Your task to perform on an android device: change your default location settings in chrome Image 0: 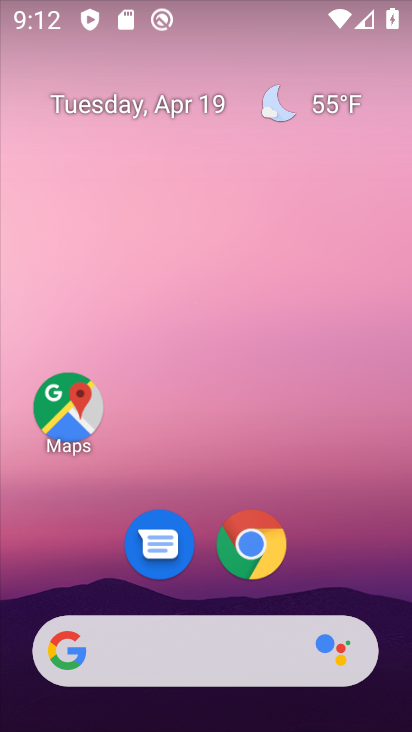
Step 0: click (366, 73)
Your task to perform on an android device: change your default location settings in chrome Image 1: 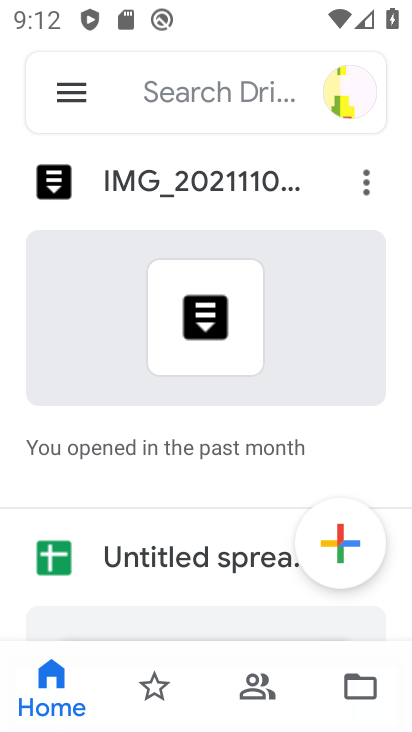
Step 1: press home button
Your task to perform on an android device: change your default location settings in chrome Image 2: 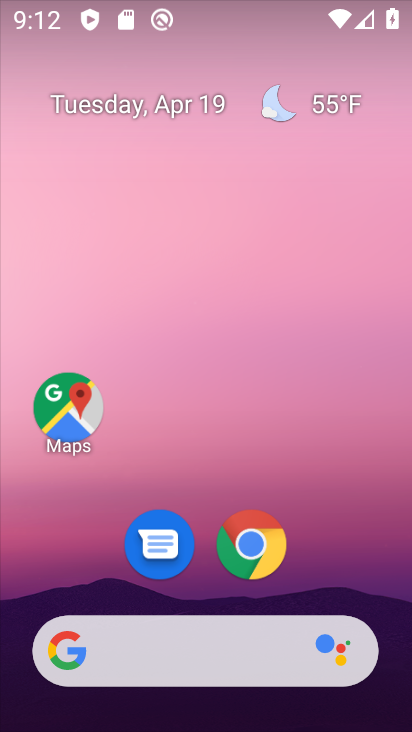
Step 2: drag from (354, 571) to (367, 73)
Your task to perform on an android device: change your default location settings in chrome Image 3: 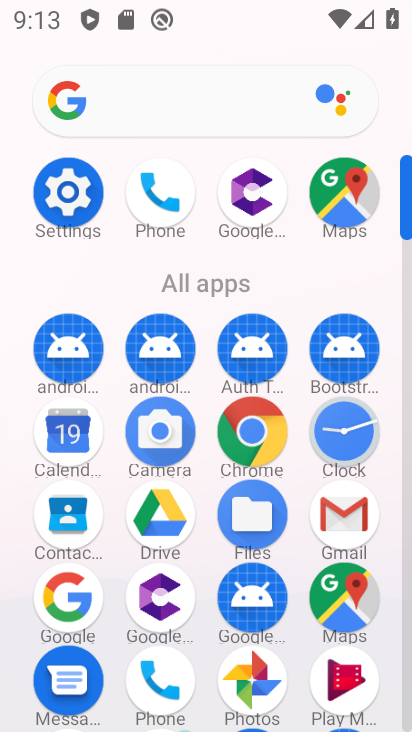
Step 3: click (273, 445)
Your task to perform on an android device: change your default location settings in chrome Image 4: 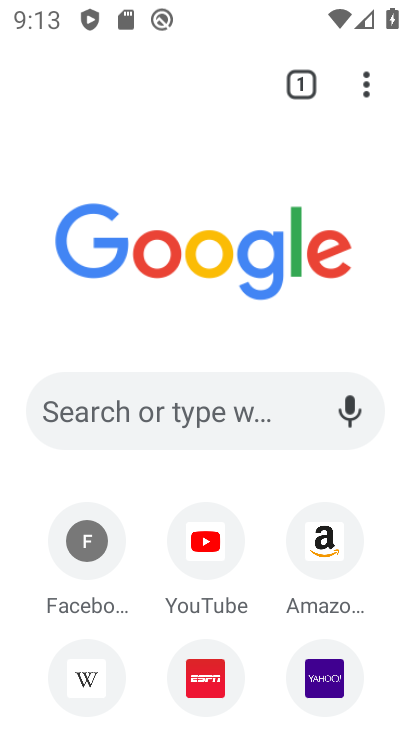
Step 4: click (366, 91)
Your task to perform on an android device: change your default location settings in chrome Image 5: 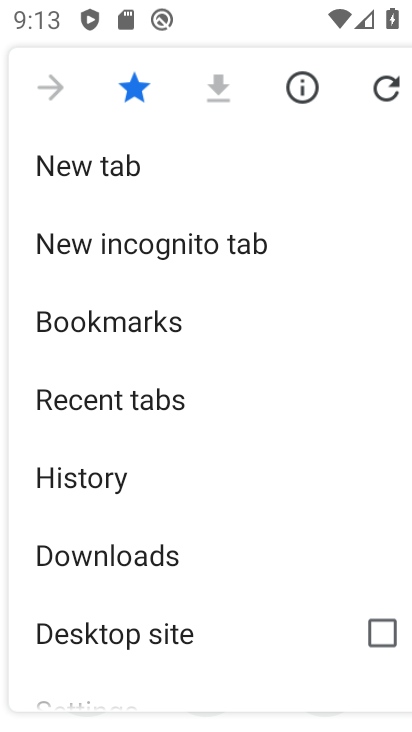
Step 5: drag from (292, 545) to (316, 292)
Your task to perform on an android device: change your default location settings in chrome Image 6: 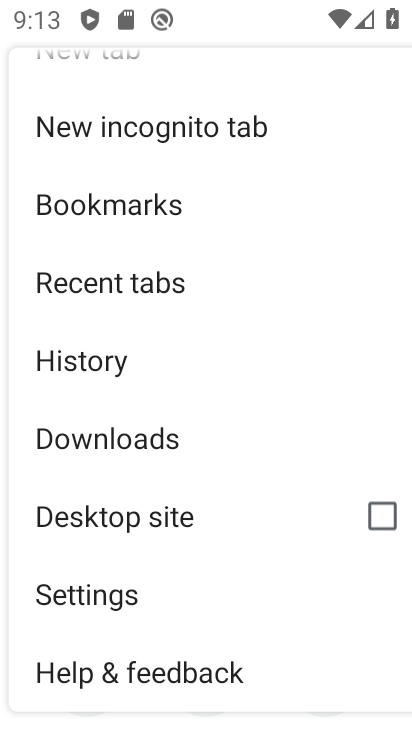
Step 6: click (99, 598)
Your task to perform on an android device: change your default location settings in chrome Image 7: 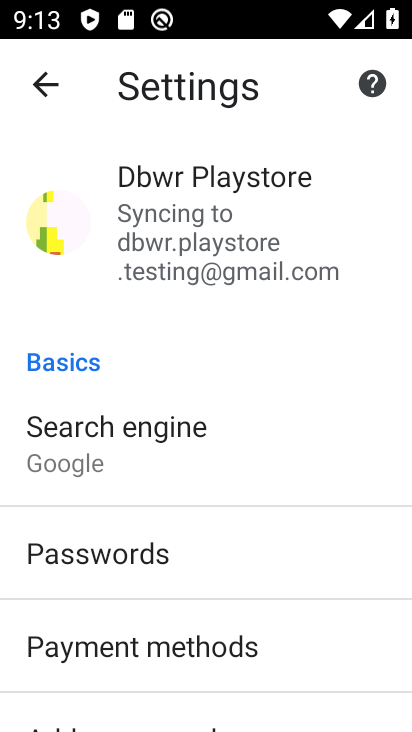
Step 7: drag from (311, 562) to (342, 394)
Your task to perform on an android device: change your default location settings in chrome Image 8: 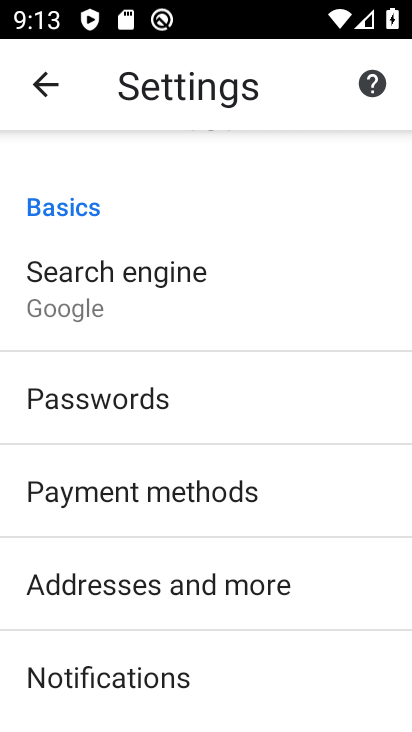
Step 8: drag from (339, 589) to (362, 415)
Your task to perform on an android device: change your default location settings in chrome Image 9: 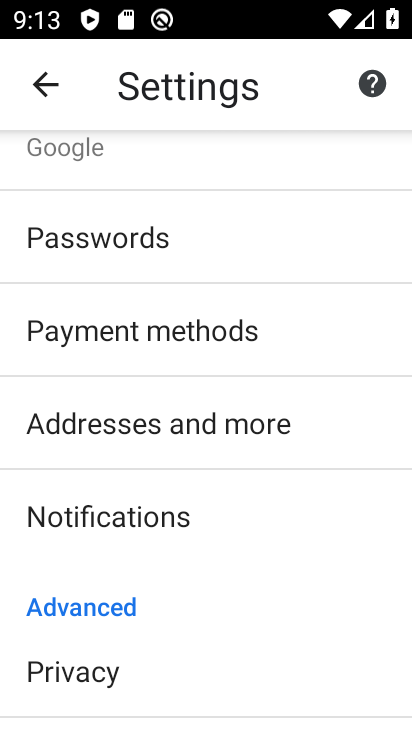
Step 9: drag from (301, 602) to (319, 339)
Your task to perform on an android device: change your default location settings in chrome Image 10: 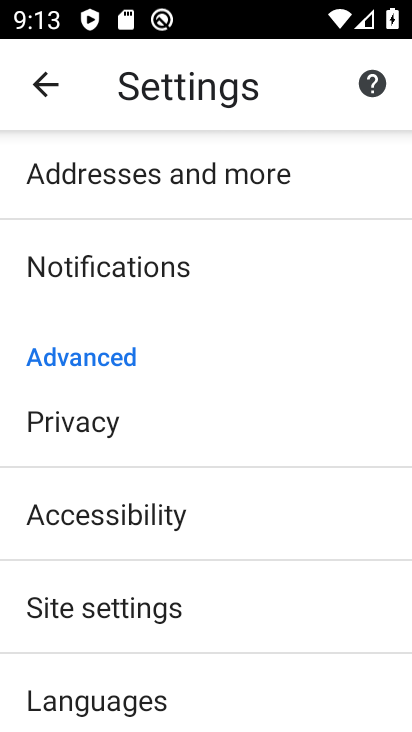
Step 10: click (225, 605)
Your task to perform on an android device: change your default location settings in chrome Image 11: 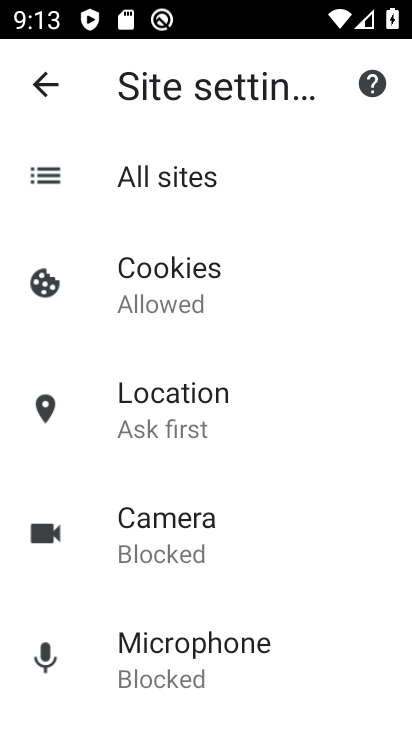
Step 11: drag from (312, 600) to (334, 372)
Your task to perform on an android device: change your default location settings in chrome Image 12: 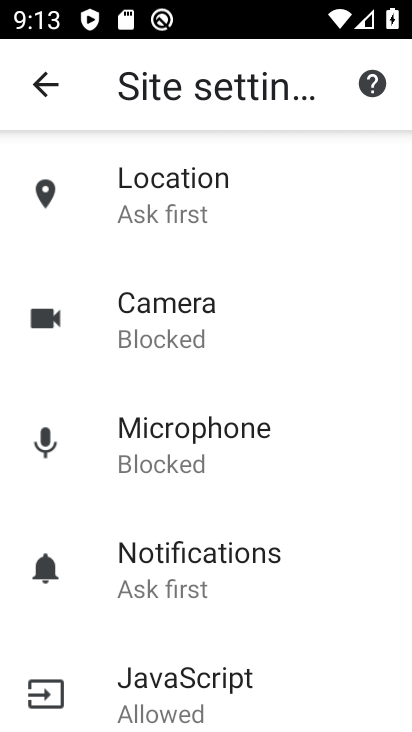
Step 12: drag from (312, 623) to (328, 390)
Your task to perform on an android device: change your default location settings in chrome Image 13: 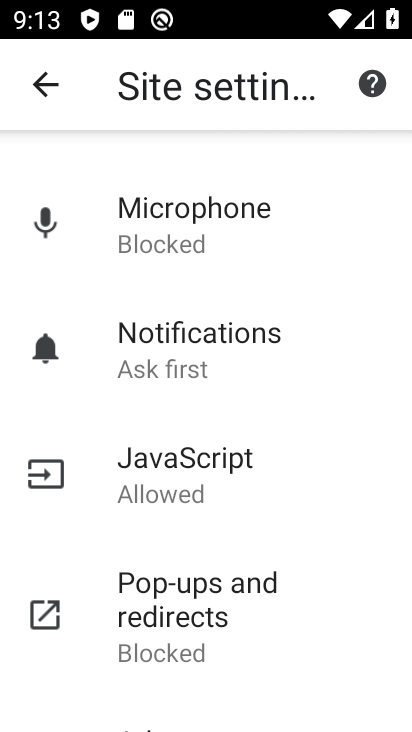
Step 13: drag from (339, 603) to (342, 367)
Your task to perform on an android device: change your default location settings in chrome Image 14: 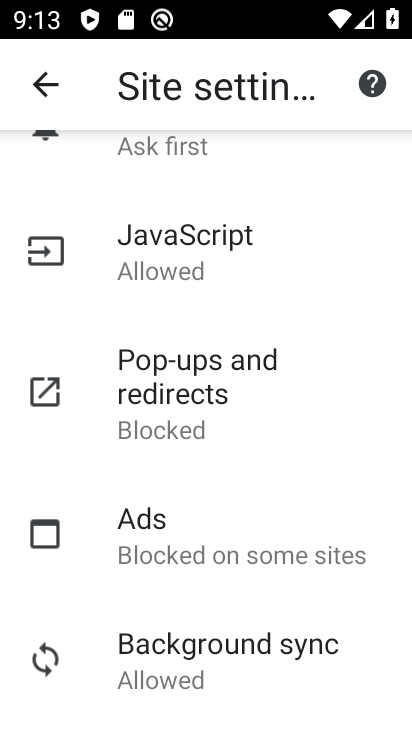
Step 14: drag from (361, 625) to (366, 371)
Your task to perform on an android device: change your default location settings in chrome Image 15: 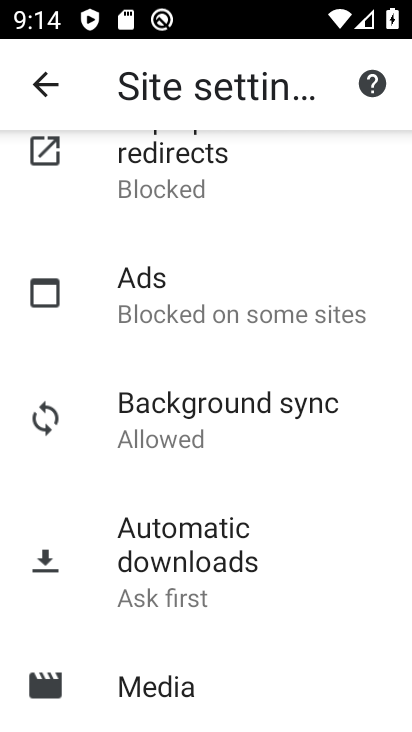
Step 15: drag from (352, 602) to (364, 322)
Your task to perform on an android device: change your default location settings in chrome Image 16: 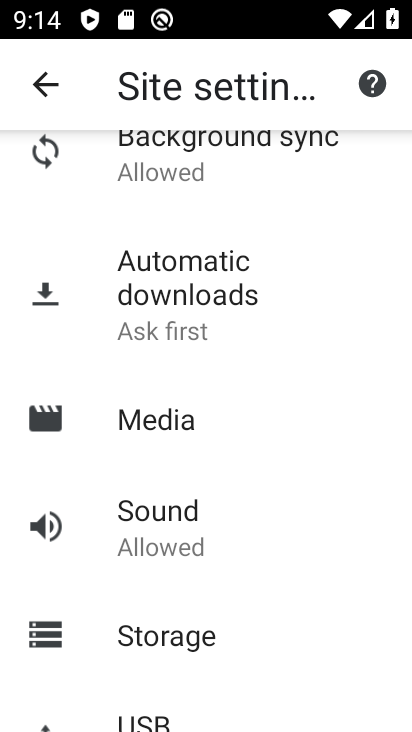
Step 16: drag from (369, 266) to (336, 503)
Your task to perform on an android device: change your default location settings in chrome Image 17: 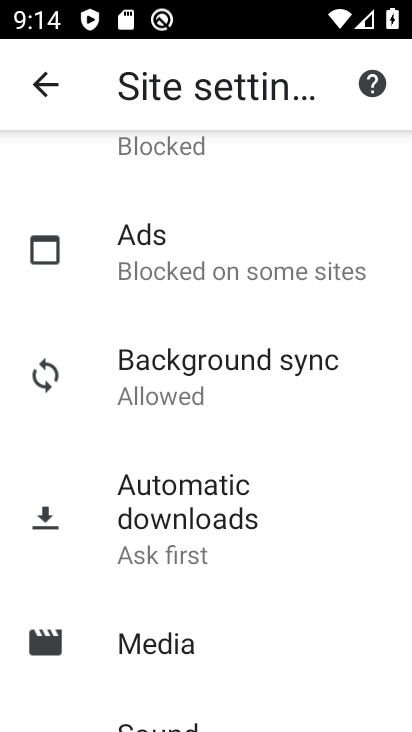
Step 17: drag from (377, 230) to (369, 495)
Your task to perform on an android device: change your default location settings in chrome Image 18: 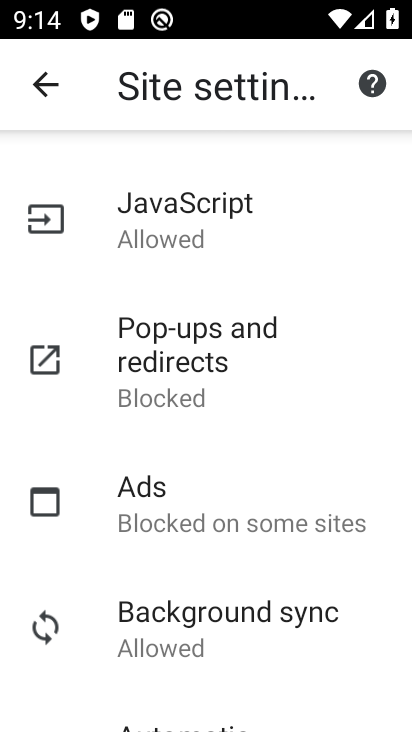
Step 18: drag from (361, 250) to (344, 478)
Your task to perform on an android device: change your default location settings in chrome Image 19: 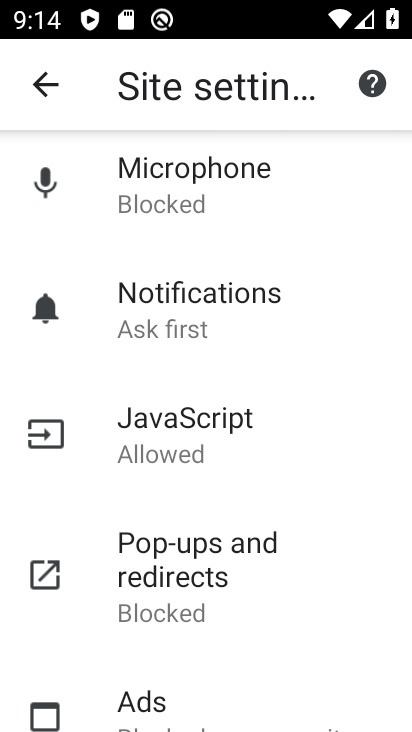
Step 19: drag from (335, 225) to (334, 518)
Your task to perform on an android device: change your default location settings in chrome Image 20: 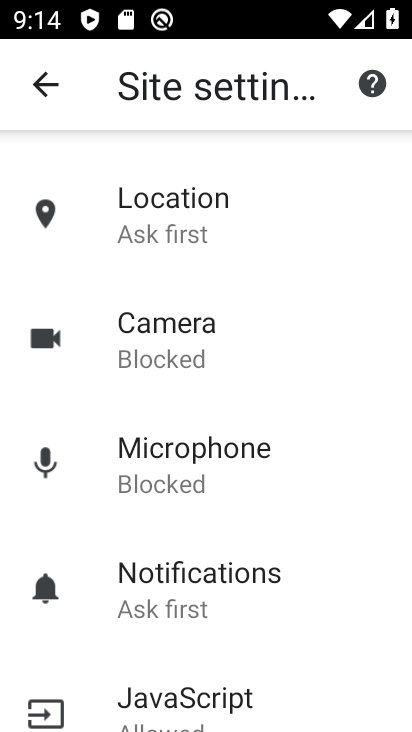
Step 20: click (175, 216)
Your task to perform on an android device: change your default location settings in chrome Image 21: 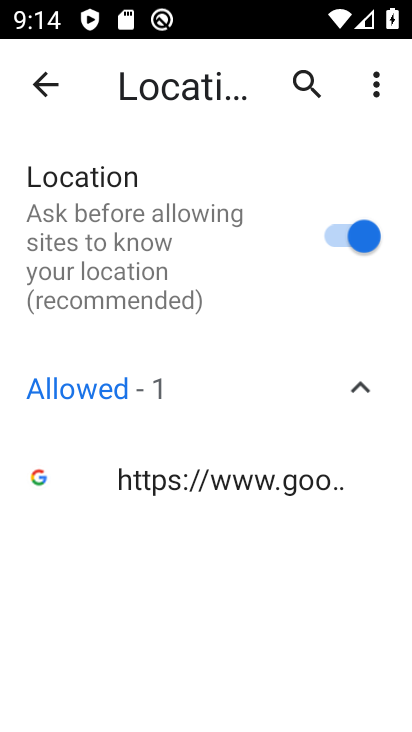
Step 21: click (329, 234)
Your task to perform on an android device: change your default location settings in chrome Image 22: 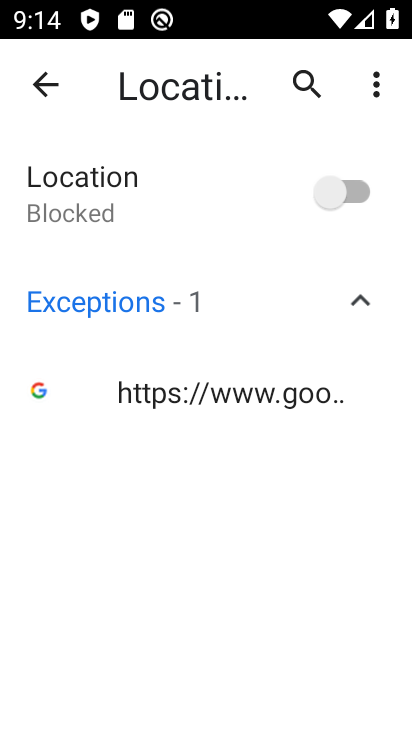
Step 22: task complete